Your task to perform on an android device: check out phone information Image 0: 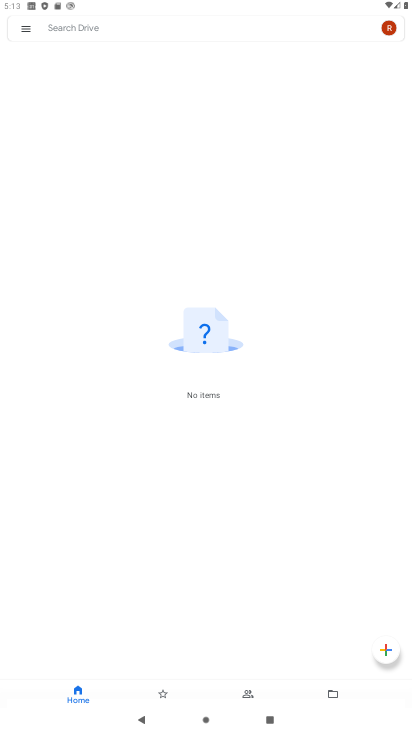
Step 0: press home button
Your task to perform on an android device: check out phone information Image 1: 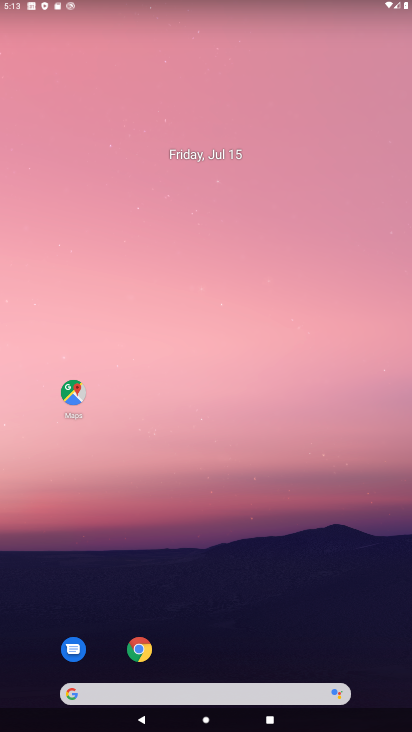
Step 1: drag from (200, 693) to (266, 86)
Your task to perform on an android device: check out phone information Image 2: 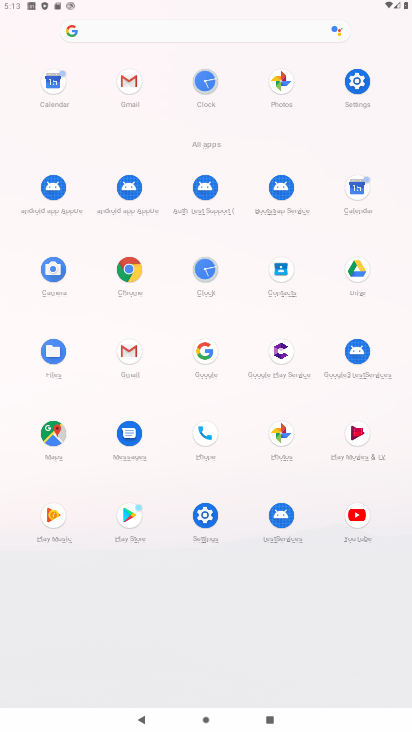
Step 2: click (356, 79)
Your task to perform on an android device: check out phone information Image 3: 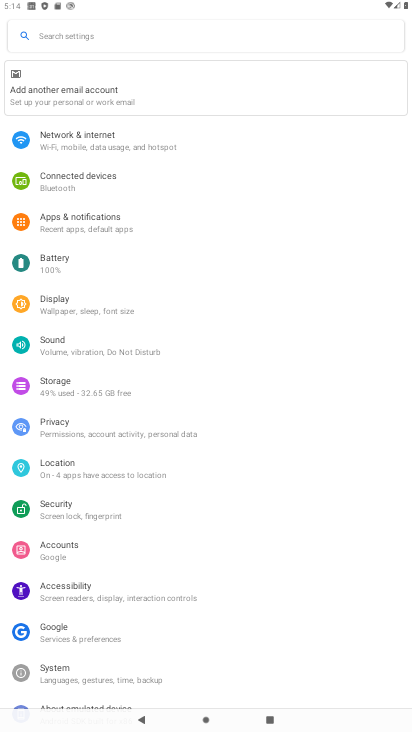
Step 3: drag from (83, 515) to (150, 382)
Your task to perform on an android device: check out phone information Image 4: 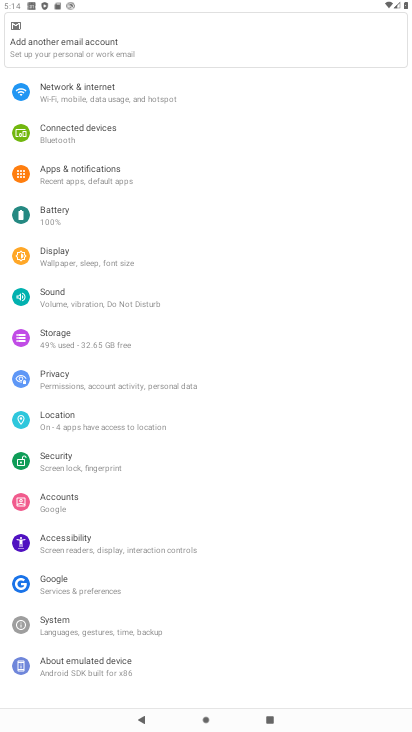
Step 4: click (73, 663)
Your task to perform on an android device: check out phone information Image 5: 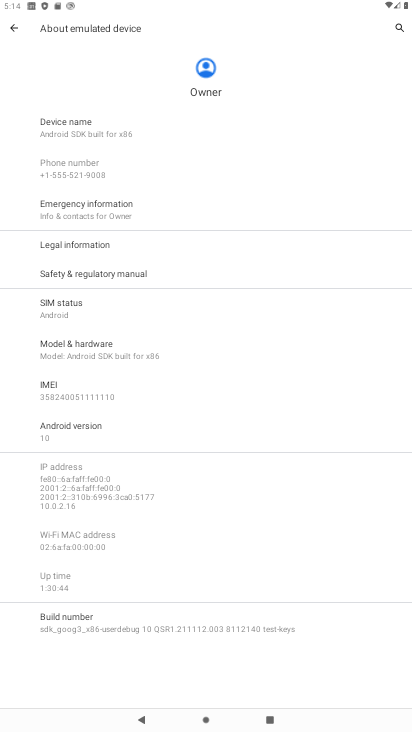
Step 5: task complete